Your task to perform on an android device: add a contact in the contacts app Image 0: 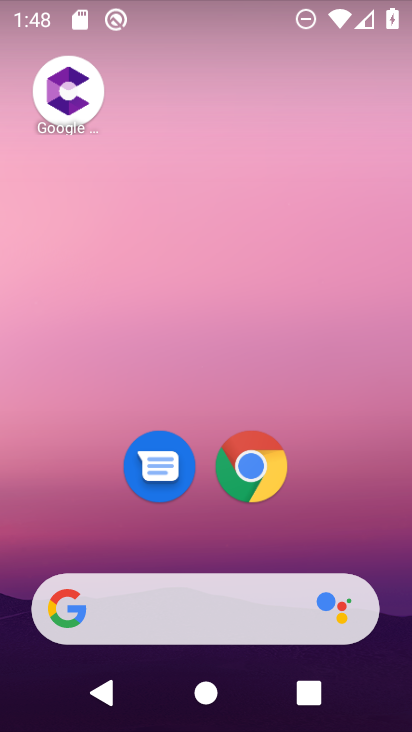
Step 0: drag from (119, 573) to (225, 103)
Your task to perform on an android device: add a contact in the contacts app Image 1: 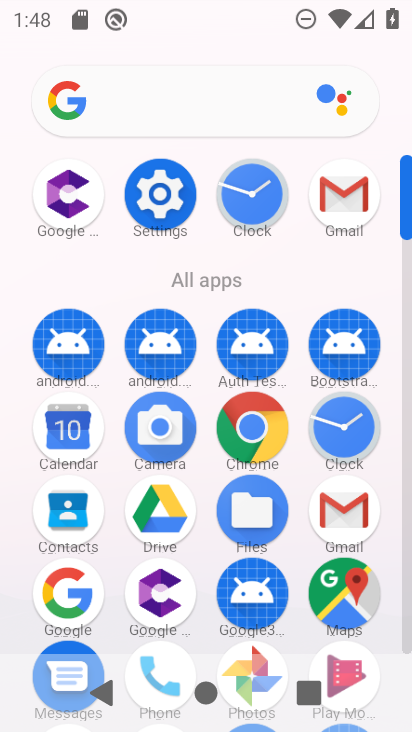
Step 1: click (61, 515)
Your task to perform on an android device: add a contact in the contacts app Image 2: 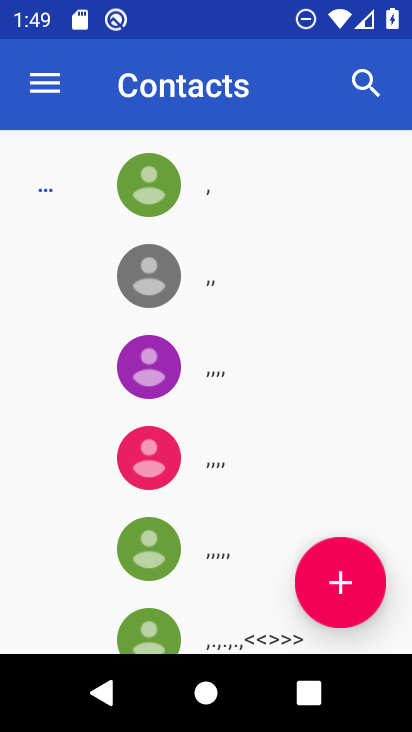
Step 2: click (347, 615)
Your task to perform on an android device: add a contact in the contacts app Image 3: 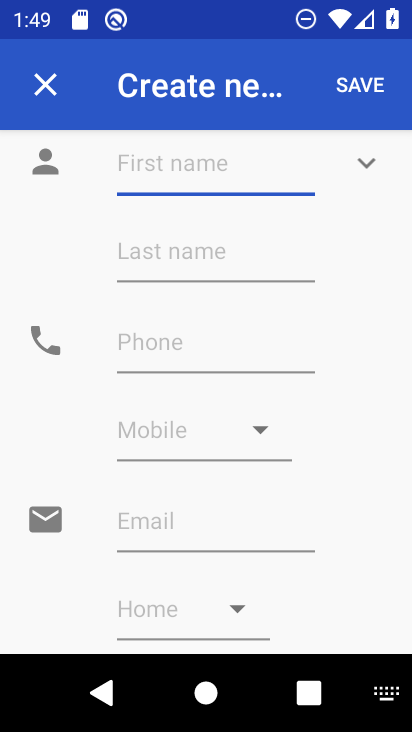
Step 3: type "cxxxxxxxxxxxxx"
Your task to perform on an android device: add a contact in the contacts app Image 4: 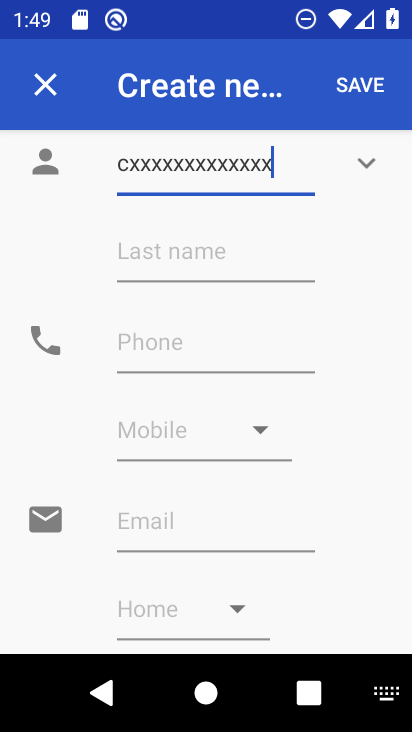
Step 4: click (166, 345)
Your task to perform on an android device: add a contact in the contacts app Image 5: 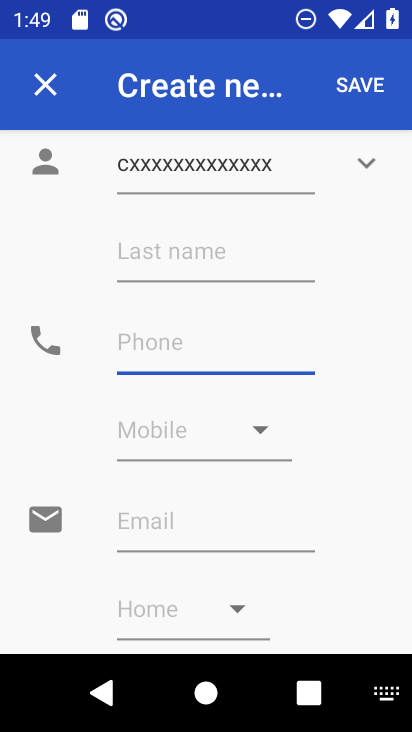
Step 5: type "292121232"
Your task to perform on an android device: add a contact in the contacts app Image 6: 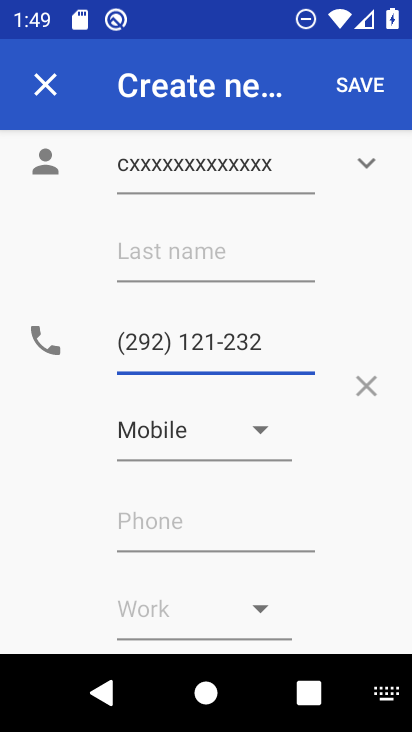
Step 6: click (389, 89)
Your task to perform on an android device: add a contact in the contacts app Image 7: 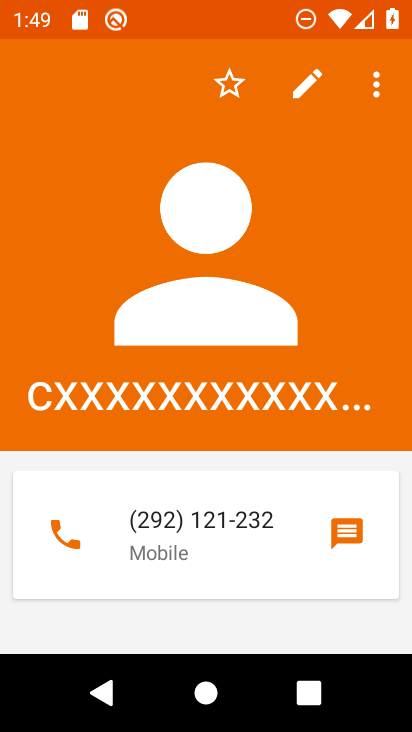
Step 7: task complete